Your task to perform on an android device: Turn on the flashlight Image 0: 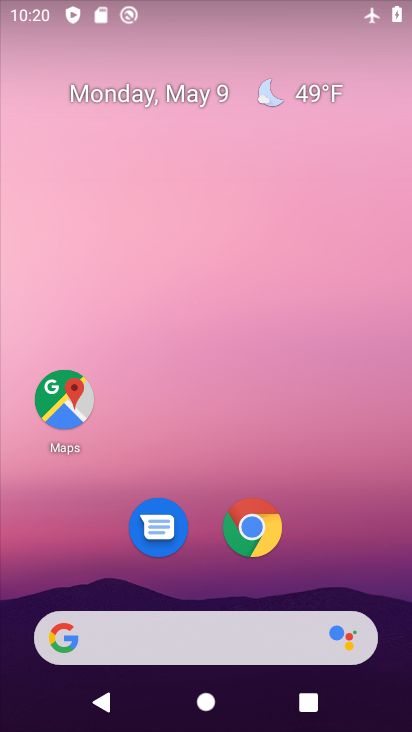
Step 0: drag from (324, 556) to (215, 207)
Your task to perform on an android device: Turn on the flashlight Image 1: 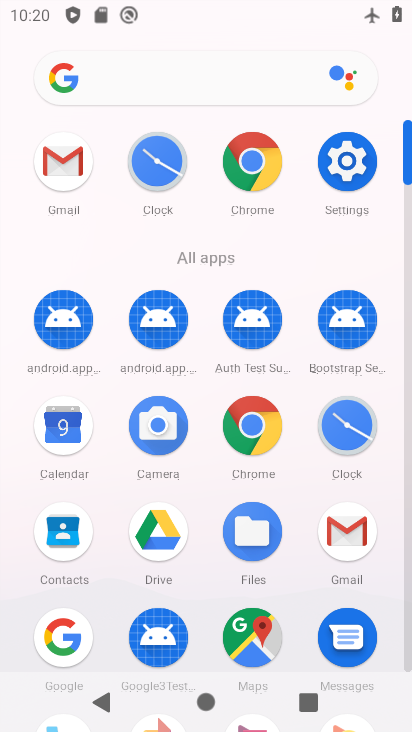
Step 1: click (345, 164)
Your task to perform on an android device: Turn on the flashlight Image 2: 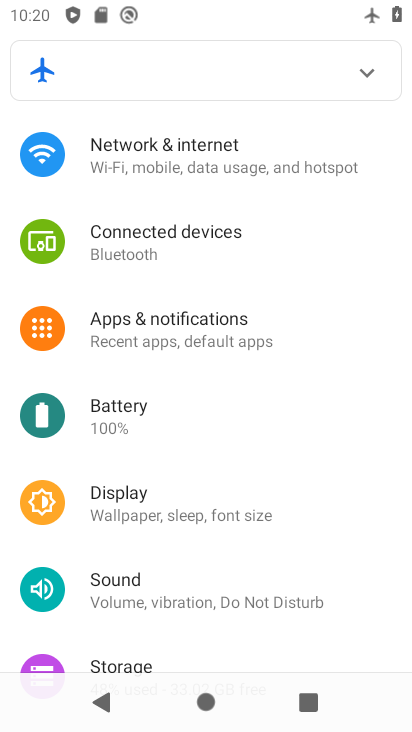
Step 2: drag from (180, 546) to (215, 450)
Your task to perform on an android device: Turn on the flashlight Image 3: 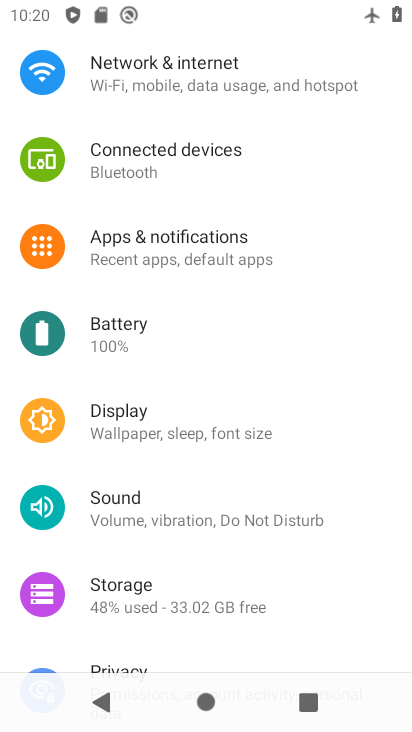
Step 3: click (123, 332)
Your task to perform on an android device: Turn on the flashlight Image 4: 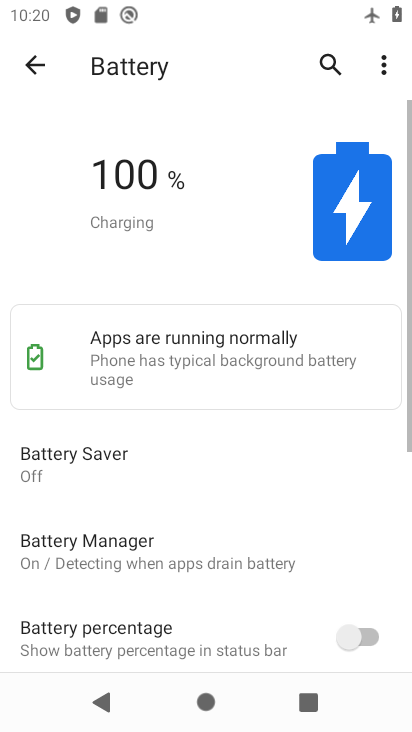
Step 4: drag from (215, 509) to (218, 406)
Your task to perform on an android device: Turn on the flashlight Image 5: 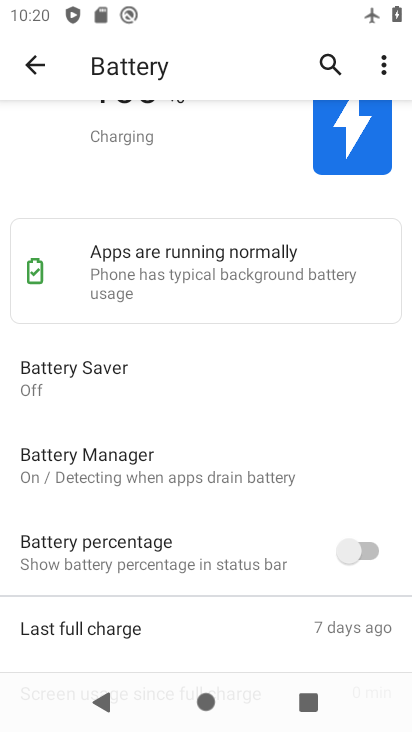
Step 5: drag from (169, 614) to (251, 470)
Your task to perform on an android device: Turn on the flashlight Image 6: 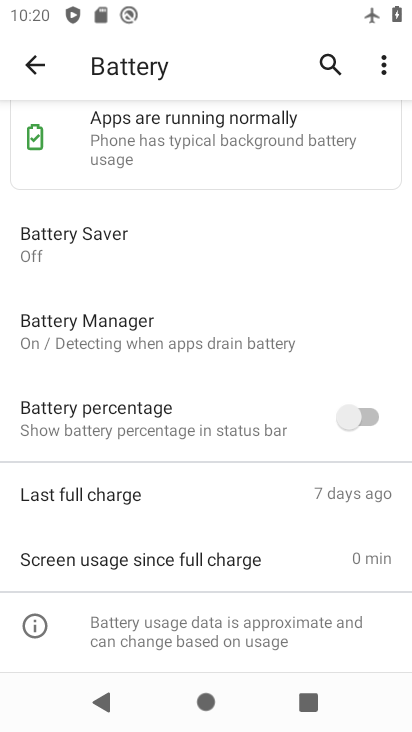
Step 6: drag from (181, 555) to (244, 357)
Your task to perform on an android device: Turn on the flashlight Image 7: 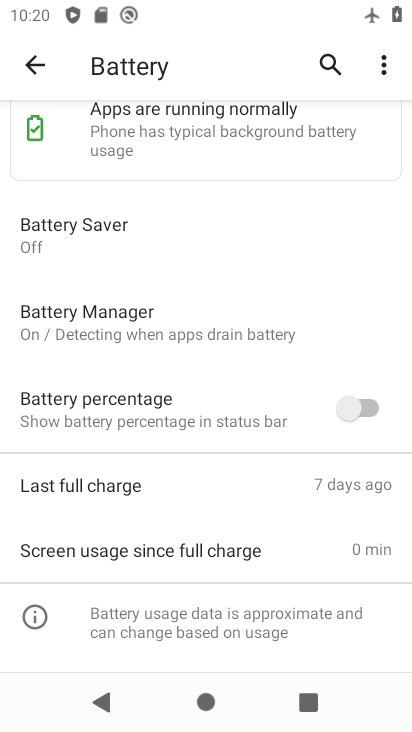
Step 7: press back button
Your task to perform on an android device: Turn on the flashlight Image 8: 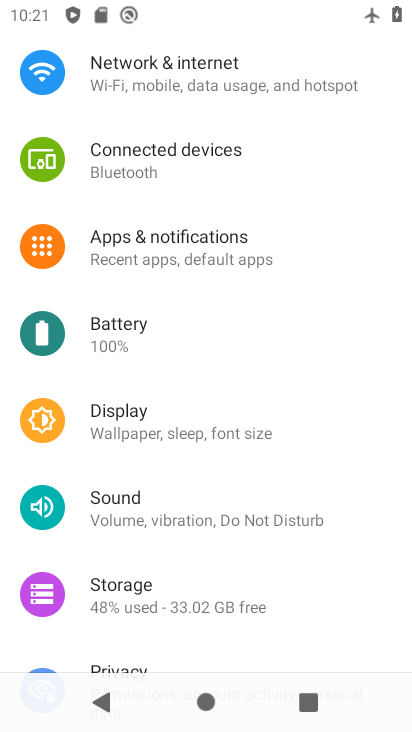
Step 8: drag from (175, 488) to (241, 373)
Your task to perform on an android device: Turn on the flashlight Image 9: 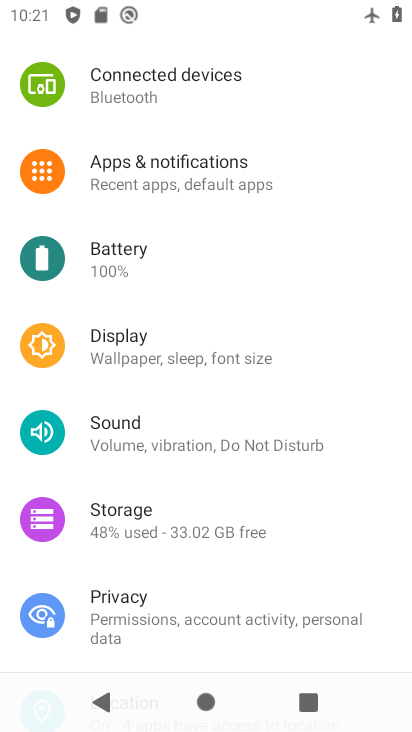
Step 9: click (170, 525)
Your task to perform on an android device: Turn on the flashlight Image 10: 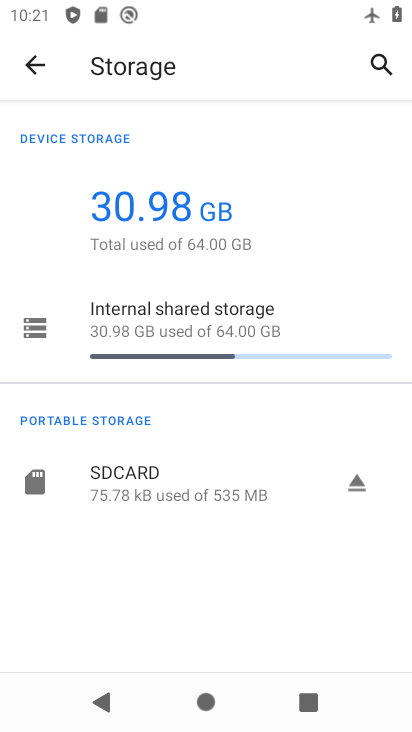
Step 10: press back button
Your task to perform on an android device: Turn on the flashlight Image 11: 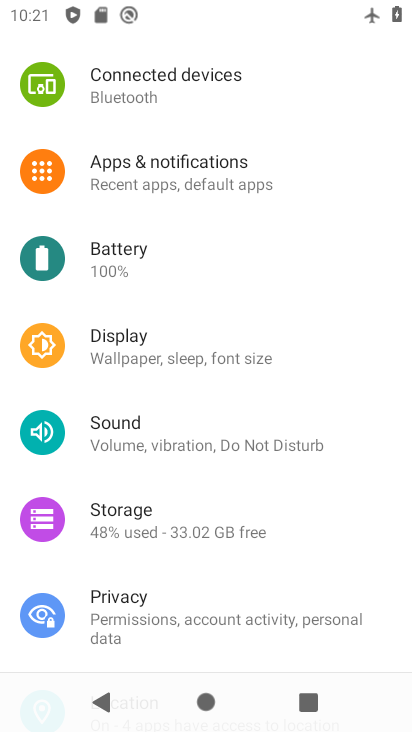
Step 11: drag from (180, 482) to (241, 373)
Your task to perform on an android device: Turn on the flashlight Image 12: 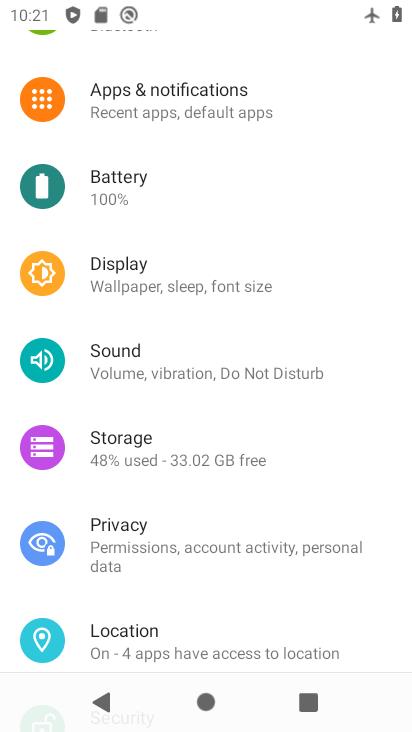
Step 12: click (176, 448)
Your task to perform on an android device: Turn on the flashlight Image 13: 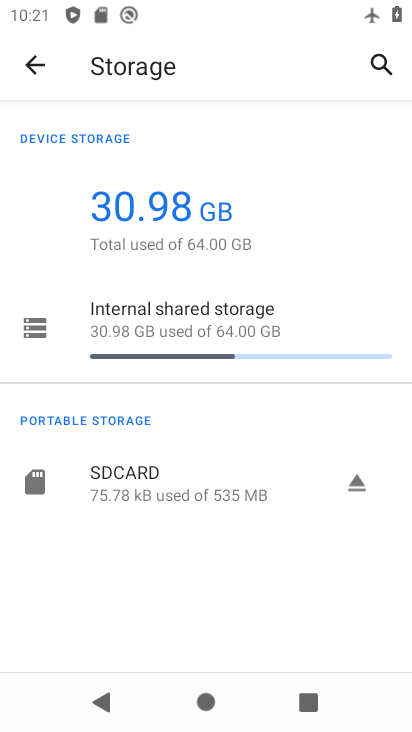
Step 13: click (152, 499)
Your task to perform on an android device: Turn on the flashlight Image 14: 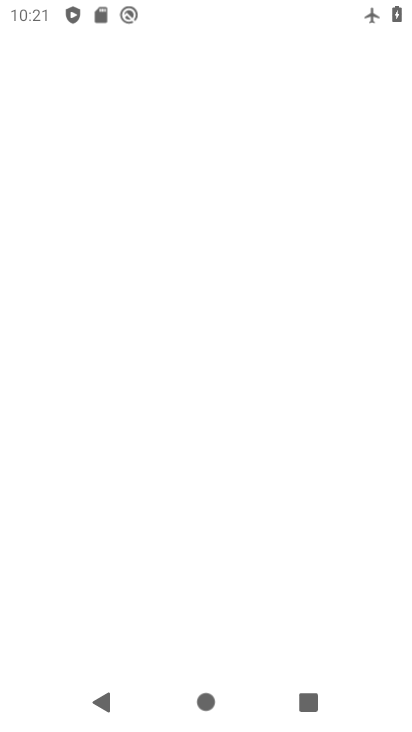
Step 14: press back button
Your task to perform on an android device: Turn on the flashlight Image 15: 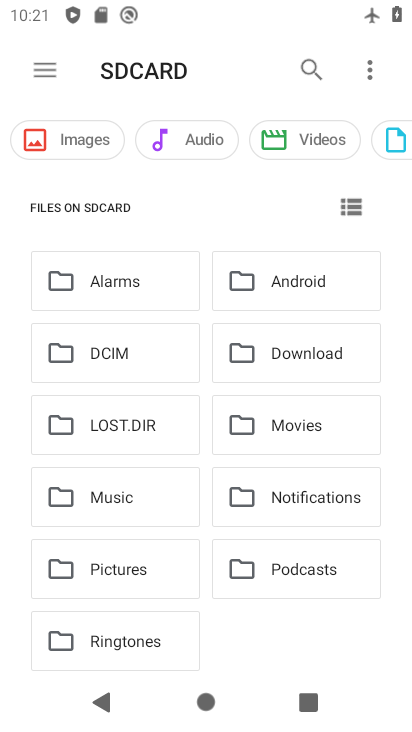
Step 15: press back button
Your task to perform on an android device: Turn on the flashlight Image 16: 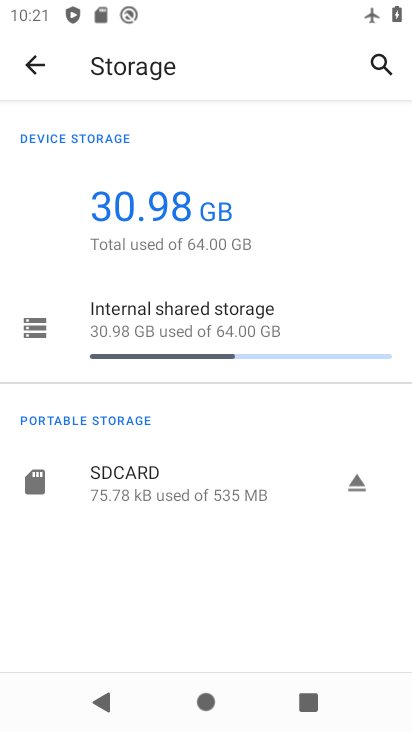
Step 16: press back button
Your task to perform on an android device: Turn on the flashlight Image 17: 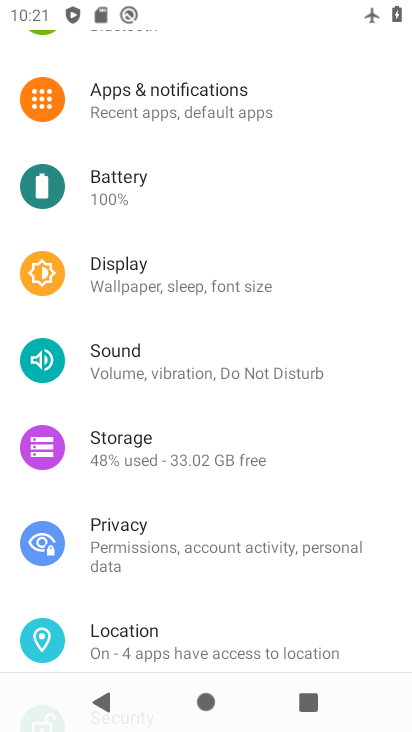
Step 17: drag from (137, 486) to (227, 348)
Your task to perform on an android device: Turn on the flashlight Image 18: 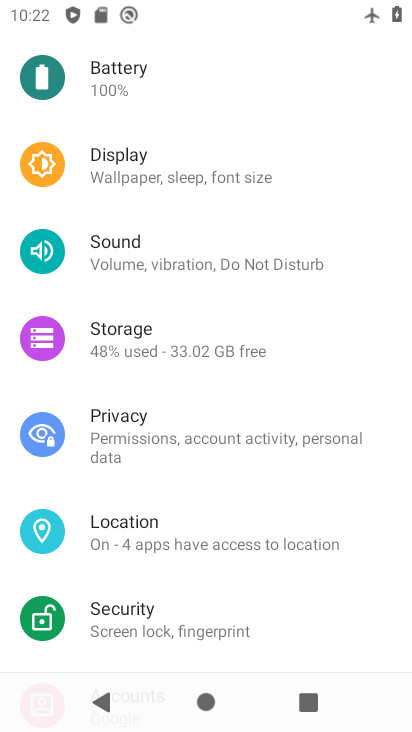
Step 18: drag from (155, 463) to (180, 310)
Your task to perform on an android device: Turn on the flashlight Image 19: 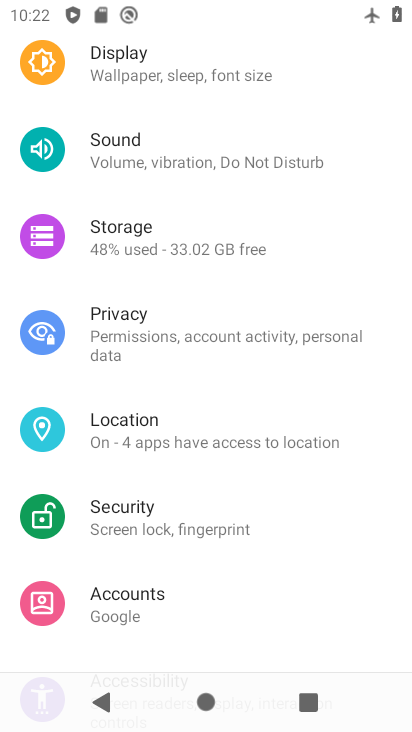
Step 19: click (162, 72)
Your task to perform on an android device: Turn on the flashlight Image 20: 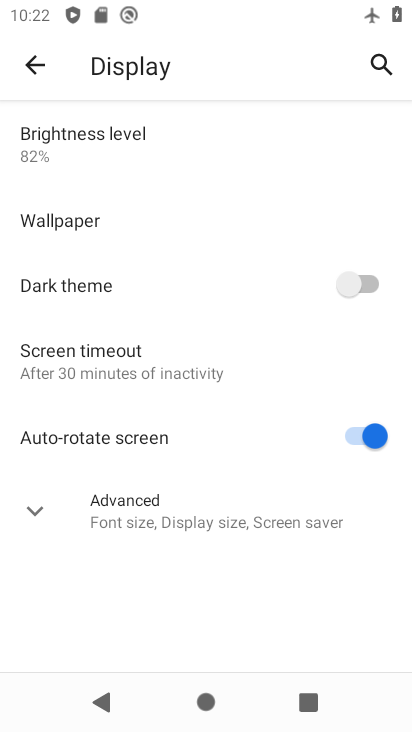
Step 20: click (118, 370)
Your task to perform on an android device: Turn on the flashlight Image 21: 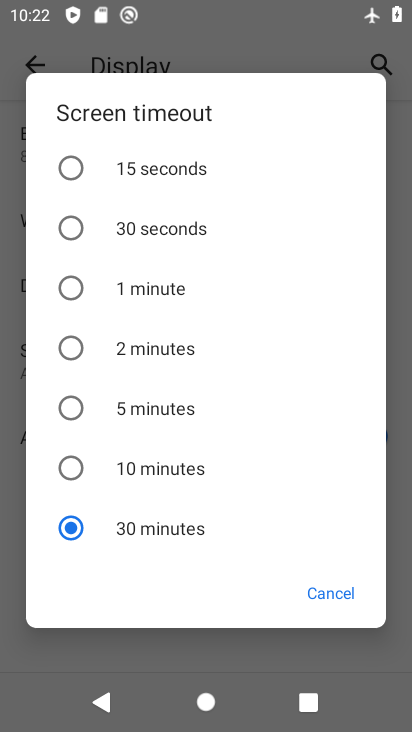
Step 21: click (329, 603)
Your task to perform on an android device: Turn on the flashlight Image 22: 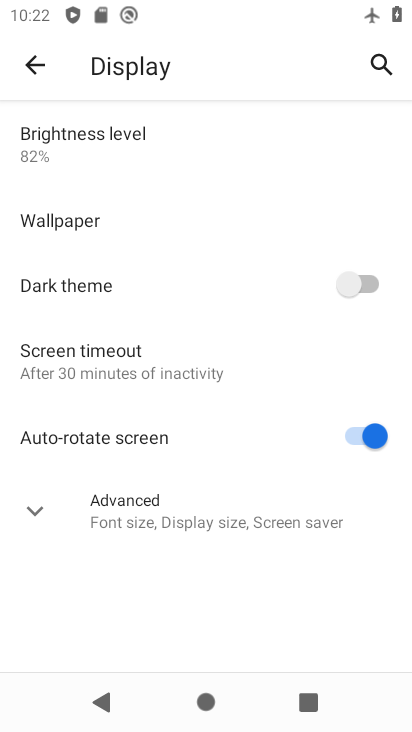
Step 22: press back button
Your task to perform on an android device: Turn on the flashlight Image 23: 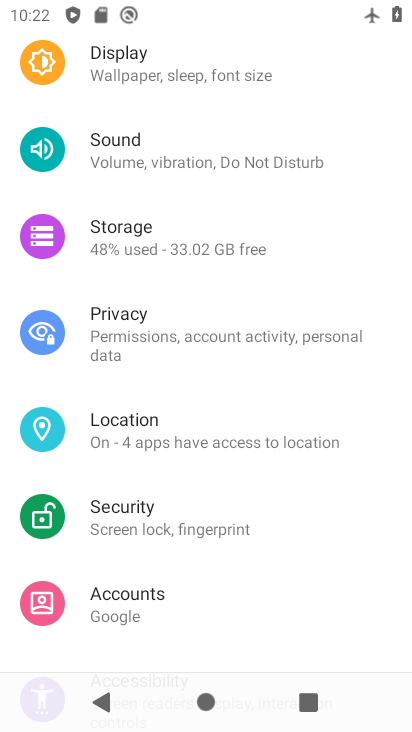
Step 23: drag from (167, 566) to (190, 474)
Your task to perform on an android device: Turn on the flashlight Image 24: 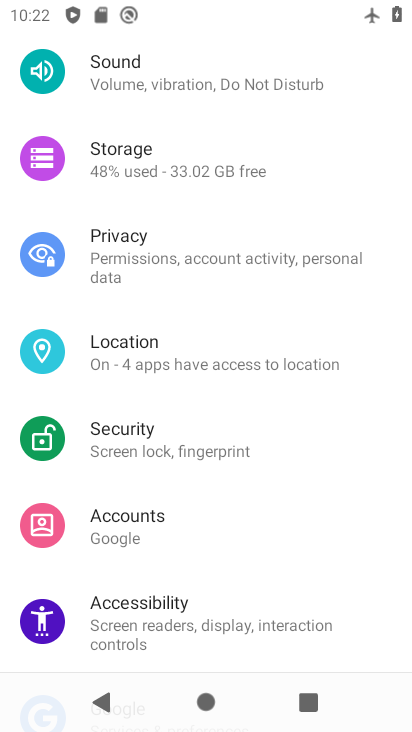
Step 24: drag from (152, 548) to (181, 450)
Your task to perform on an android device: Turn on the flashlight Image 25: 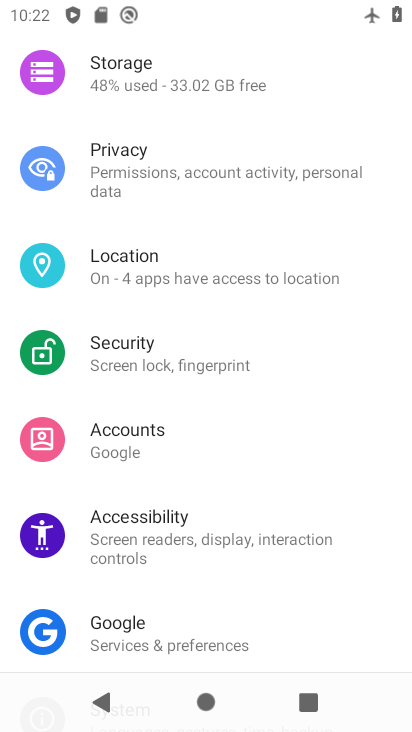
Step 25: click (148, 354)
Your task to perform on an android device: Turn on the flashlight Image 26: 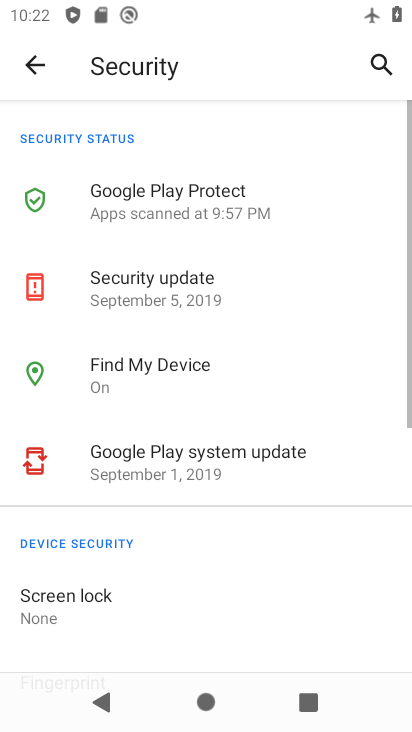
Step 26: drag from (150, 584) to (187, 386)
Your task to perform on an android device: Turn on the flashlight Image 27: 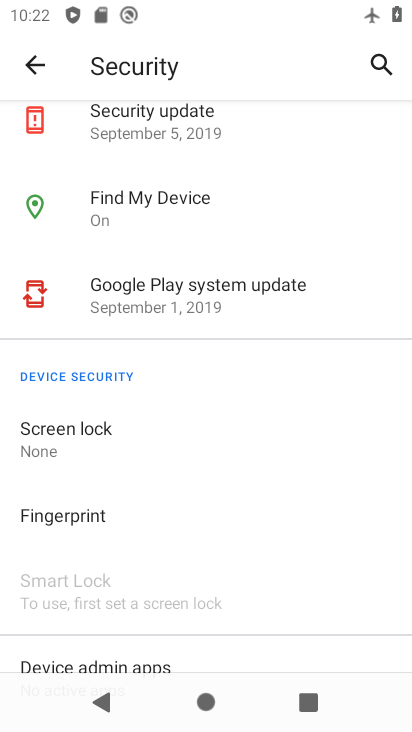
Step 27: drag from (146, 573) to (208, 279)
Your task to perform on an android device: Turn on the flashlight Image 28: 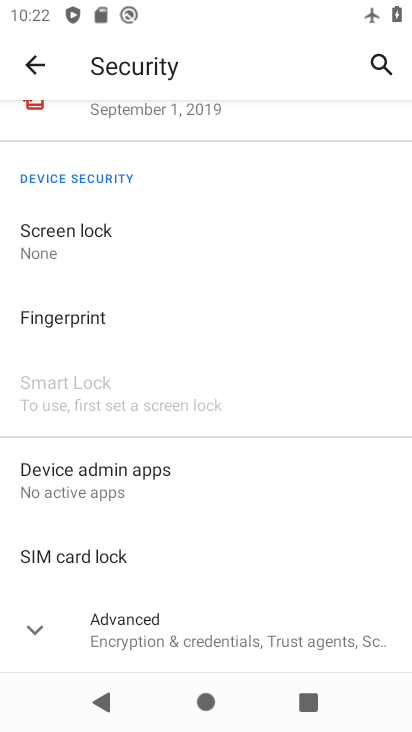
Step 28: click (230, 631)
Your task to perform on an android device: Turn on the flashlight Image 29: 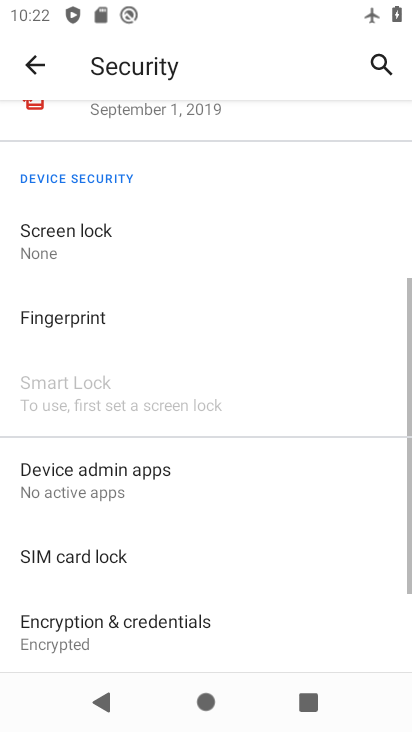
Step 29: drag from (227, 623) to (282, 456)
Your task to perform on an android device: Turn on the flashlight Image 30: 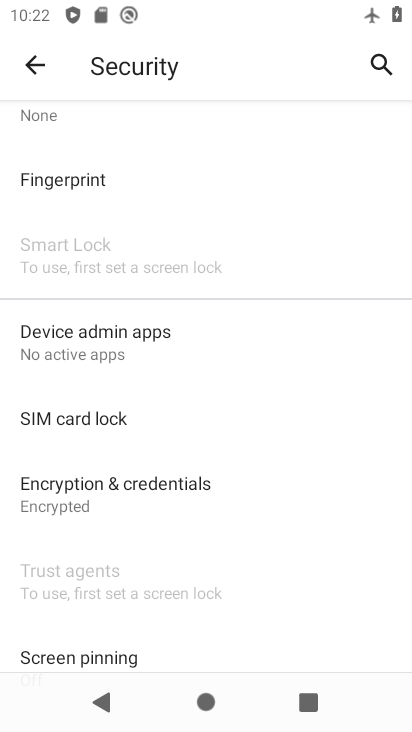
Step 30: drag from (229, 561) to (275, 391)
Your task to perform on an android device: Turn on the flashlight Image 31: 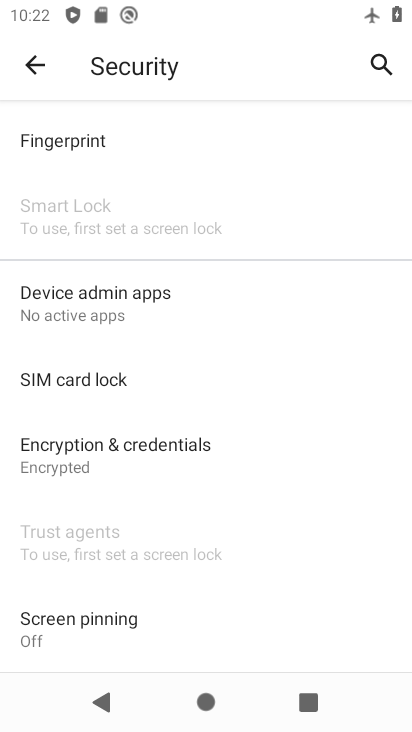
Step 31: press back button
Your task to perform on an android device: Turn on the flashlight Image 32: 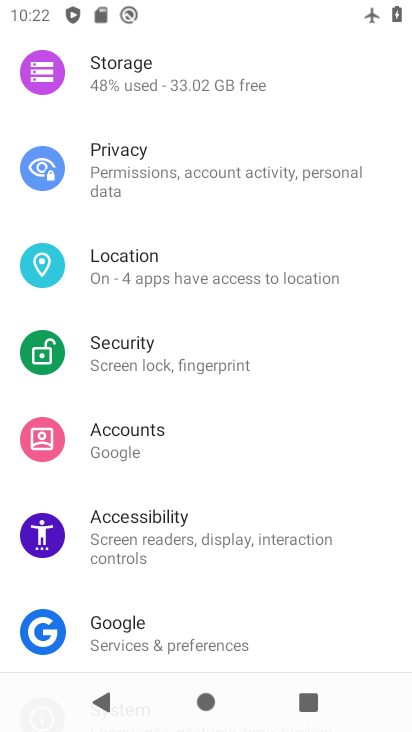
Step 32: drag from (86, 543) to (178, 406)
Your task to perform on an android device: Turn on the flashlight Image 33: 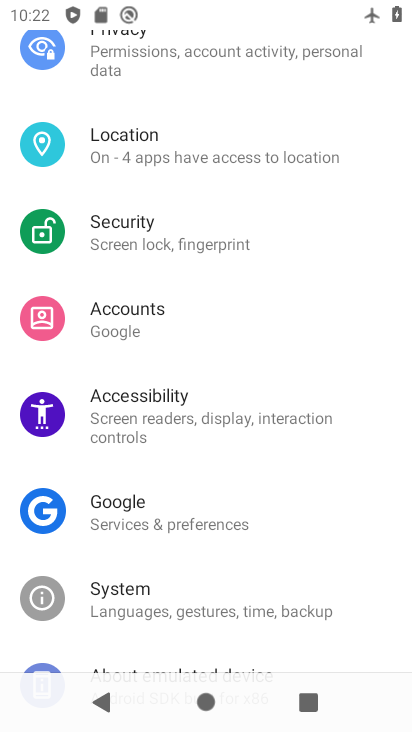
Step 33: drag from (120, 537) to (196, 403)
Your task to perform on an android device: Turn on the flashlight Image 34: 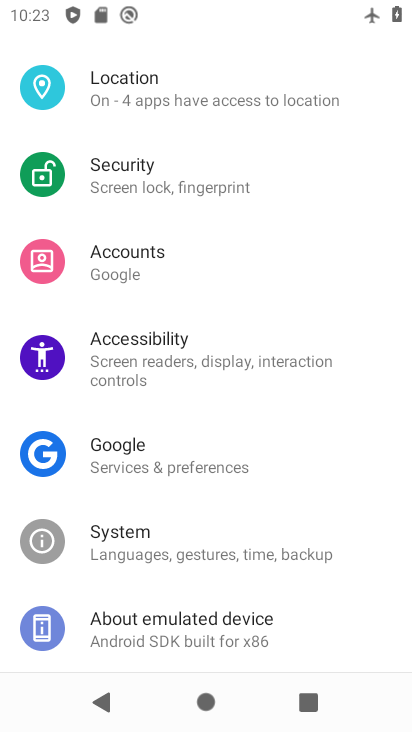
Step 34: click (130, 550)
Your task to perform on an android device: Turn on the flashlight Image 35: 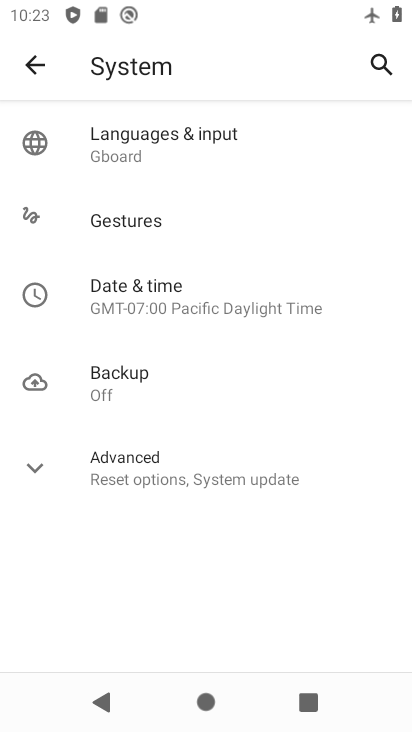
Step 35: click (174, 479)
Your task to perform on an android device: Turn on the flashlight Image 36: 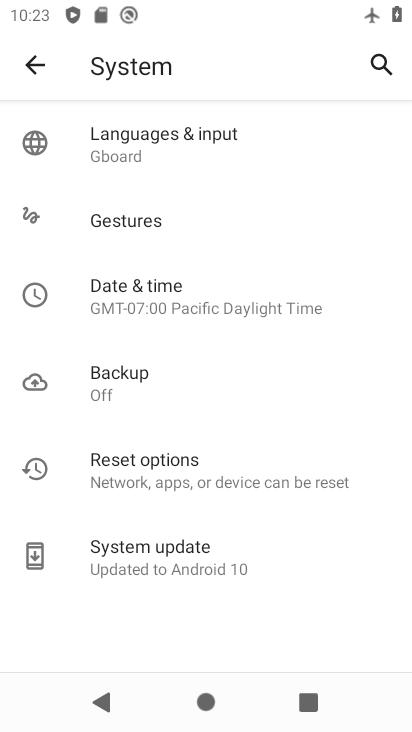
Step 36: press back button
Your task to perform on an android device: Turn on the flashlight Image 37: 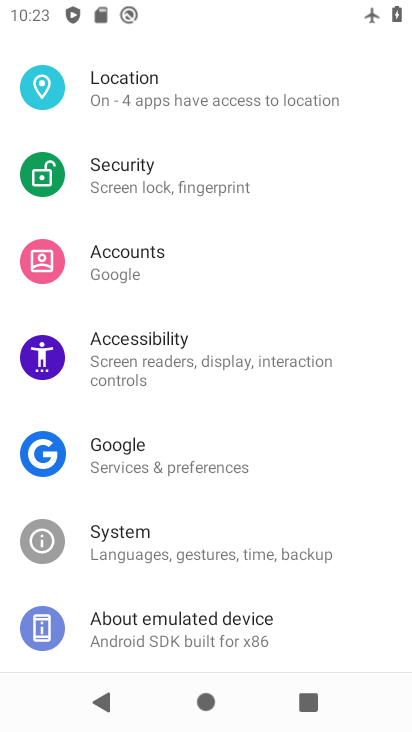
Step 37: click (168, 477)
Your task to perform on an android device: Turn on the flashlight Image 38: 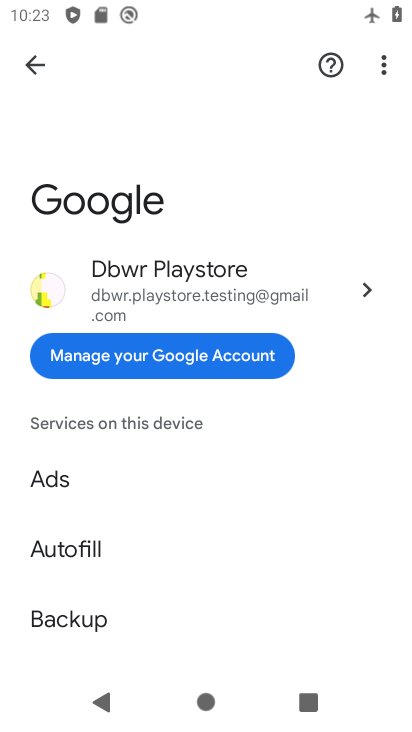
Step 38: task complete